Your task to perform on an android device: Go to sound settings Image 0: 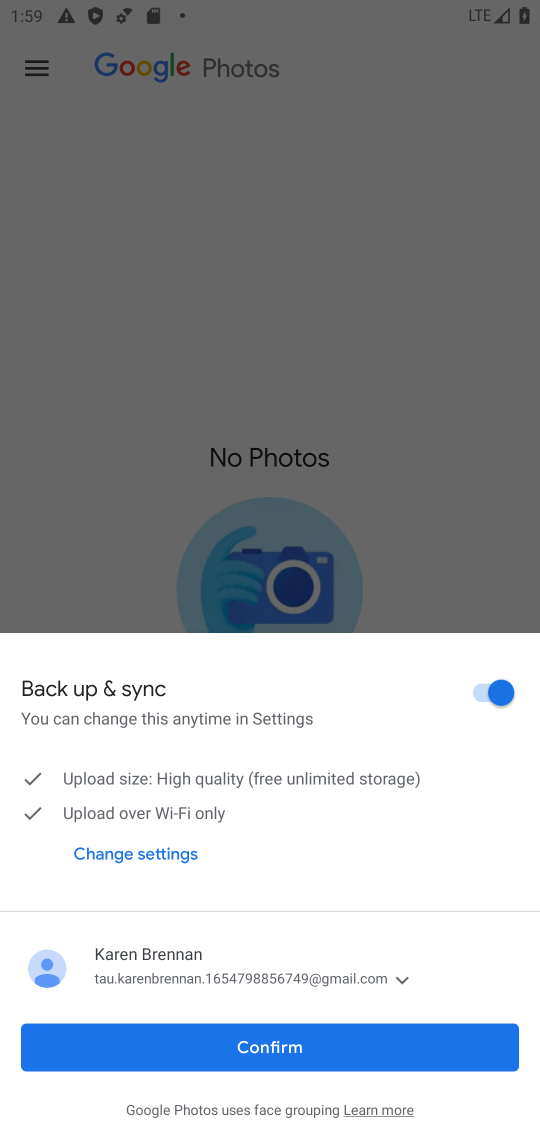
Step 0: press home button
Your task to perform on an android device: Go to sound settings Image 1: 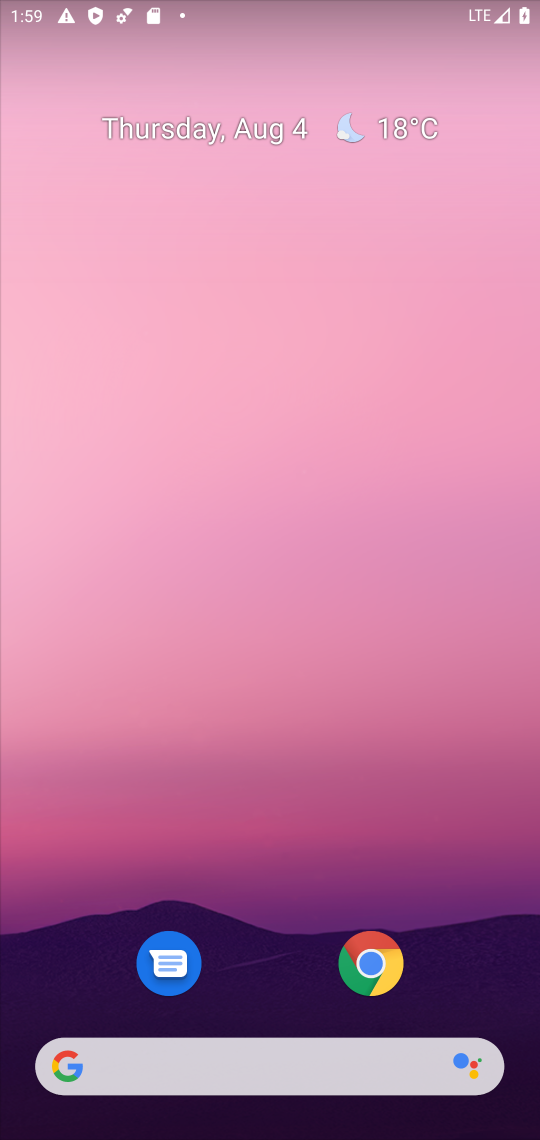
Step 1: drag from (294, 1050) to (147, 0)
Your task to perform on an android device: Go to sound settings Image 2: 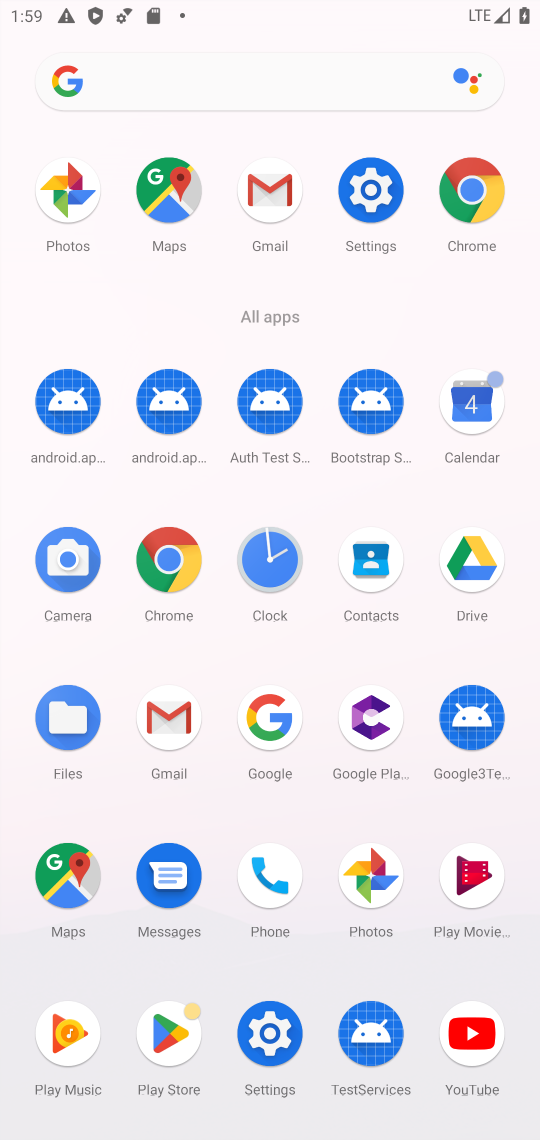
Step 2: click (344, 191)
Your task to perform on an android device: Go to sound settings Image 3: 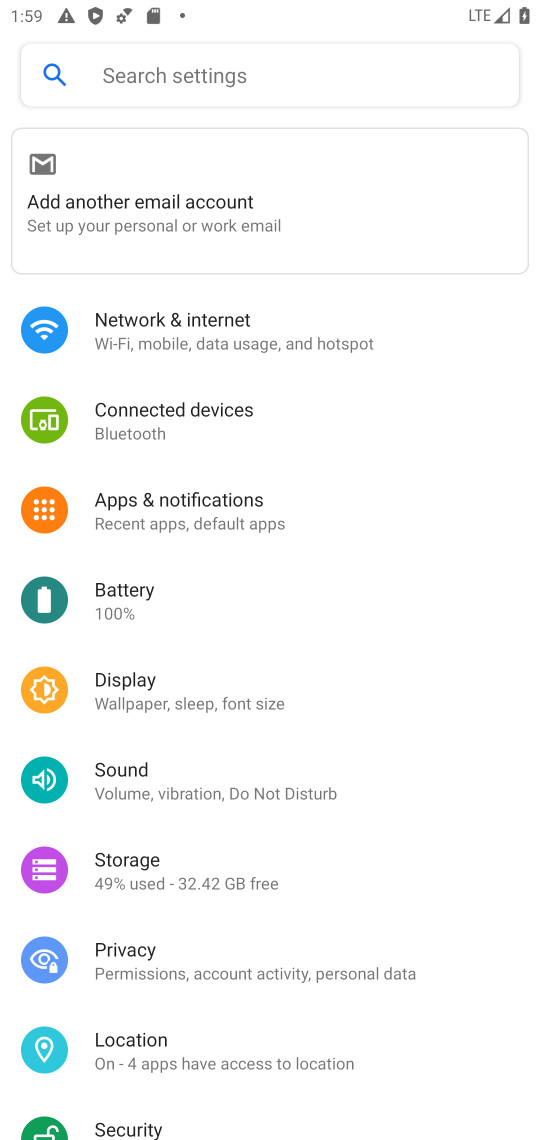
Step 3: click (96, 779)
Your task to perform on an android device: Go to sound settings Image 4: 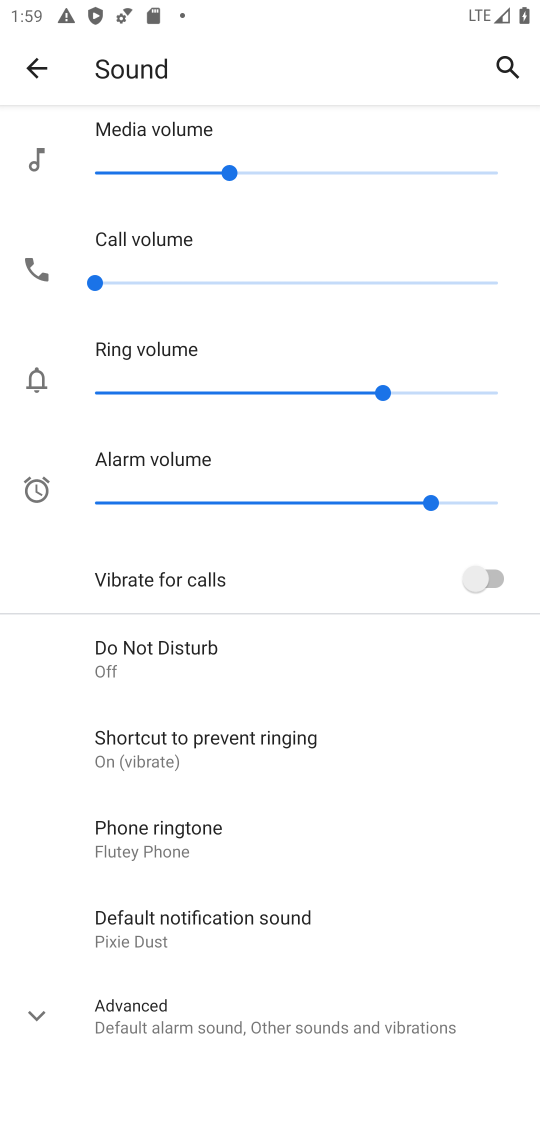
Step 4: task complete